Your task to perform on an android device: open app "Speedtest by Ookla" Image 0: 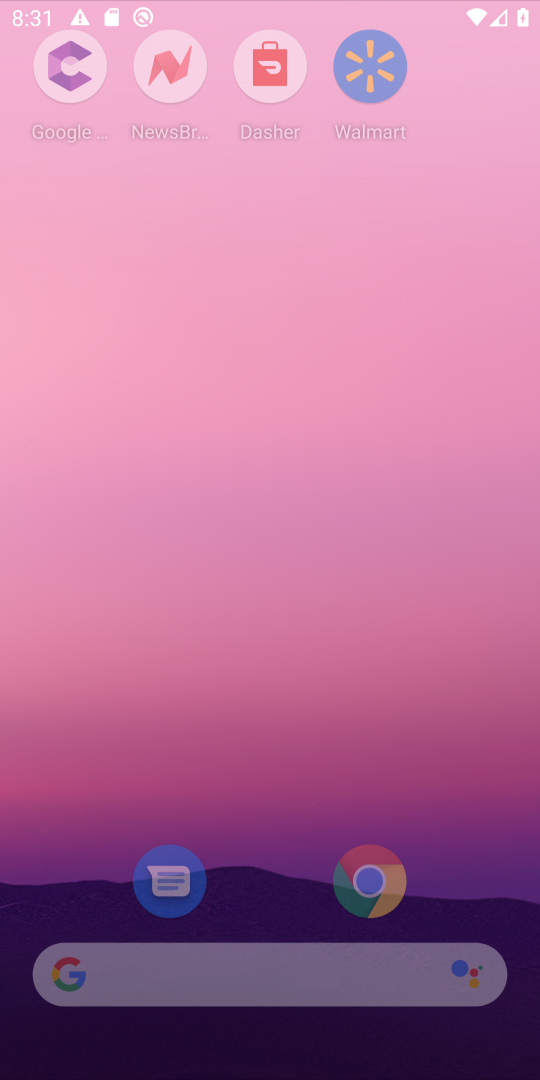
Step 0: click (441, 66)
Your task to perform on an android device: open app "Speedtest by Ookla" Image 1: 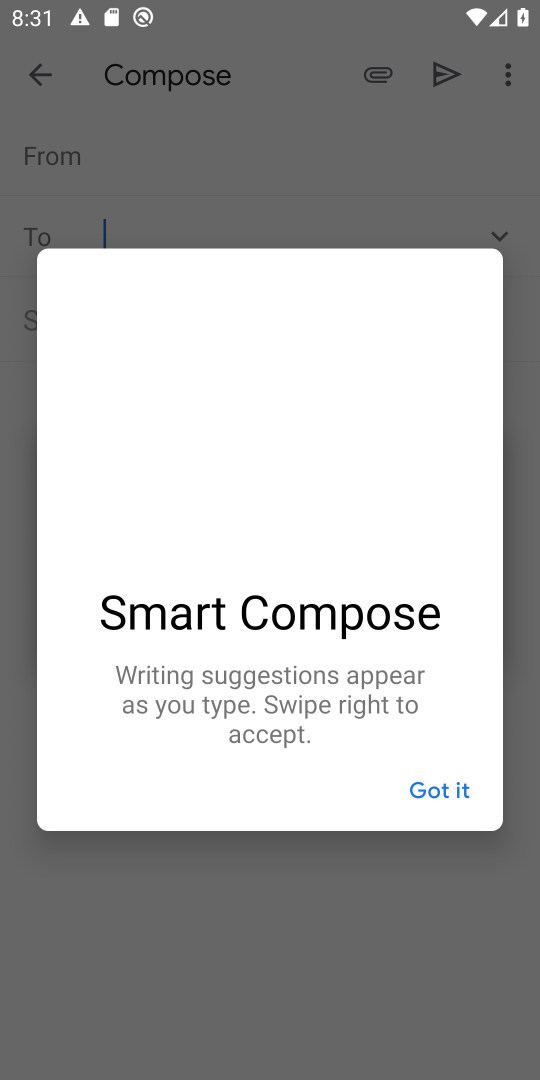
Step 1: press home button
Your task to perform on an android device: open app "Speedtest by Ookla" Image 2: 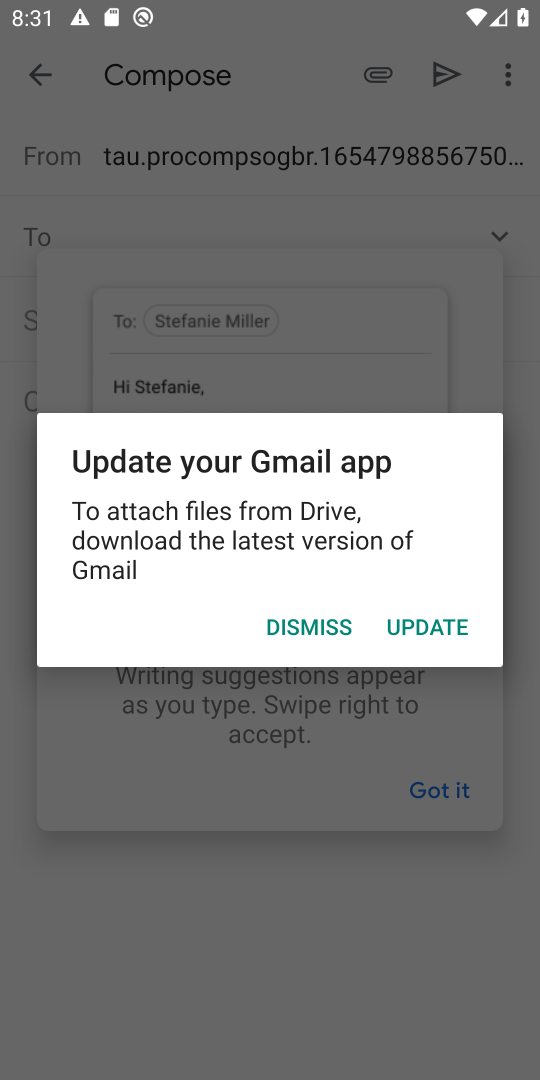
Step 2: press home button
Your task to perform on an android device: open app "Speedtest by Ookla" Image 3: 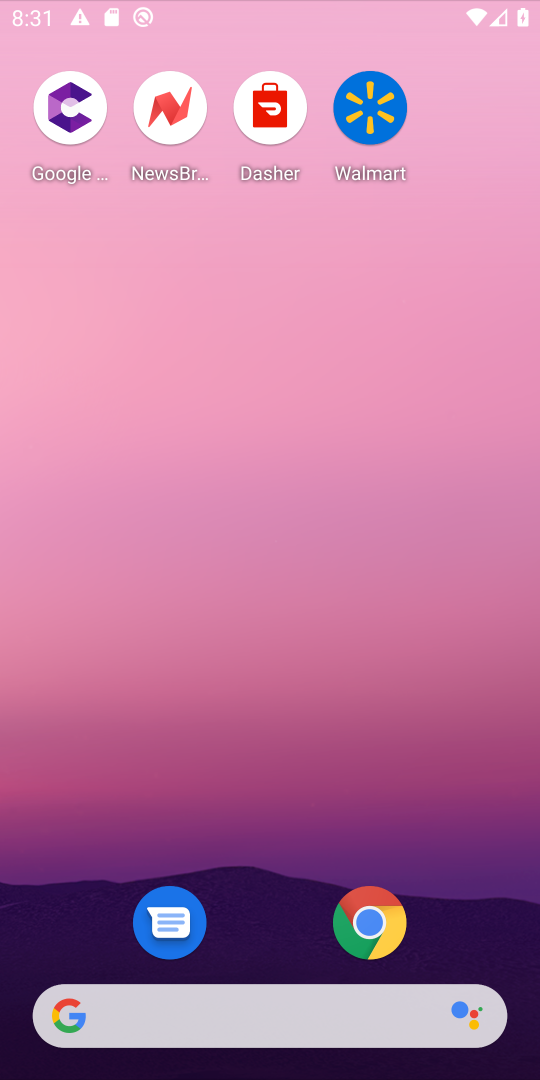
Step 3: press home button
Your task to perform on an android device: open app "Speedtest by Ookla" Image 4: 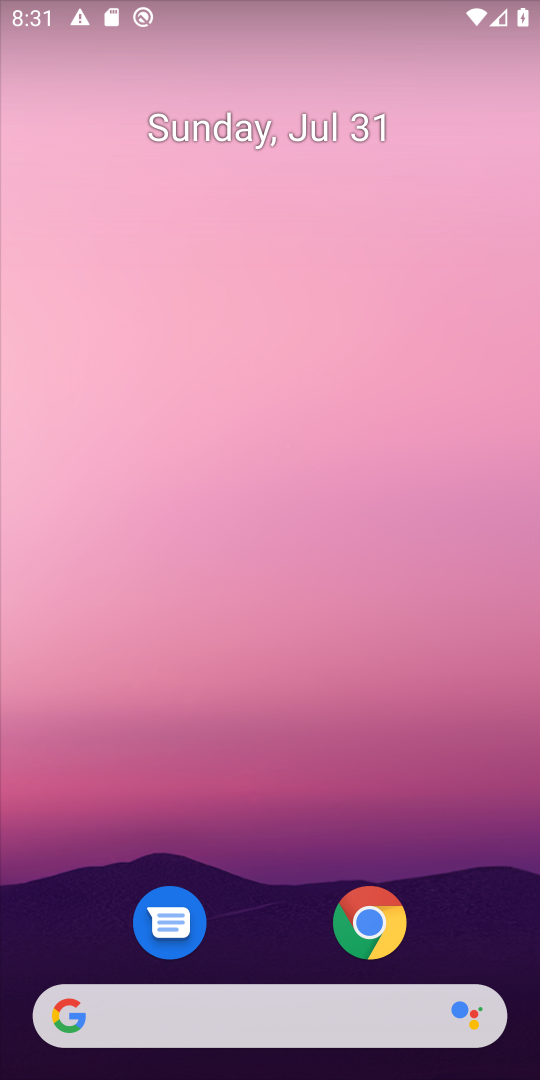
Step 4: drag from (288, 1012) to (332, 512)
Your task to perform on an android device: open app "Speedtest by Ookla" Image 5: 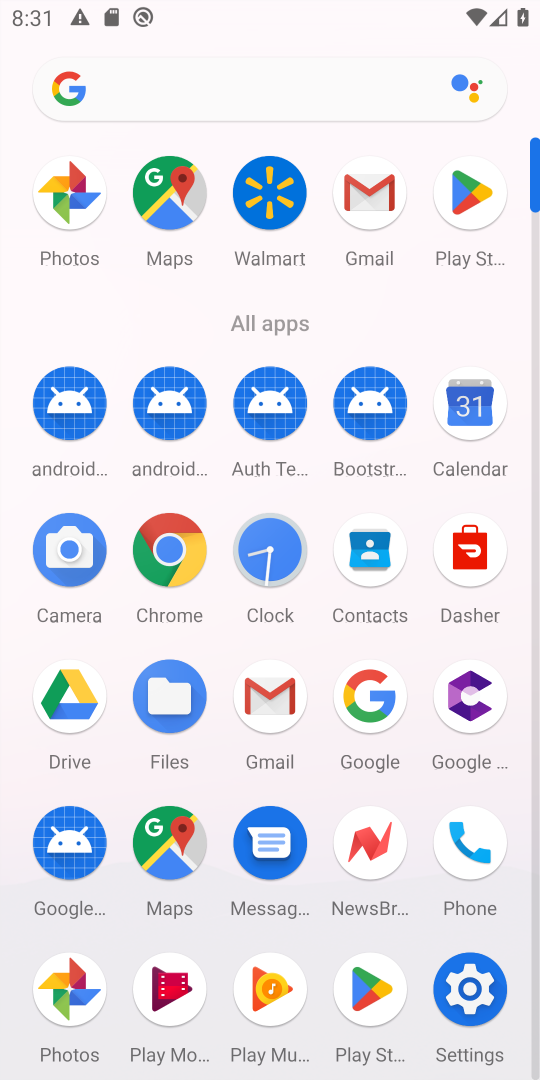
Step 5: click (379, 989)
Your task to perform on an android device: open app "Speedtest by Ookla" Image 6: 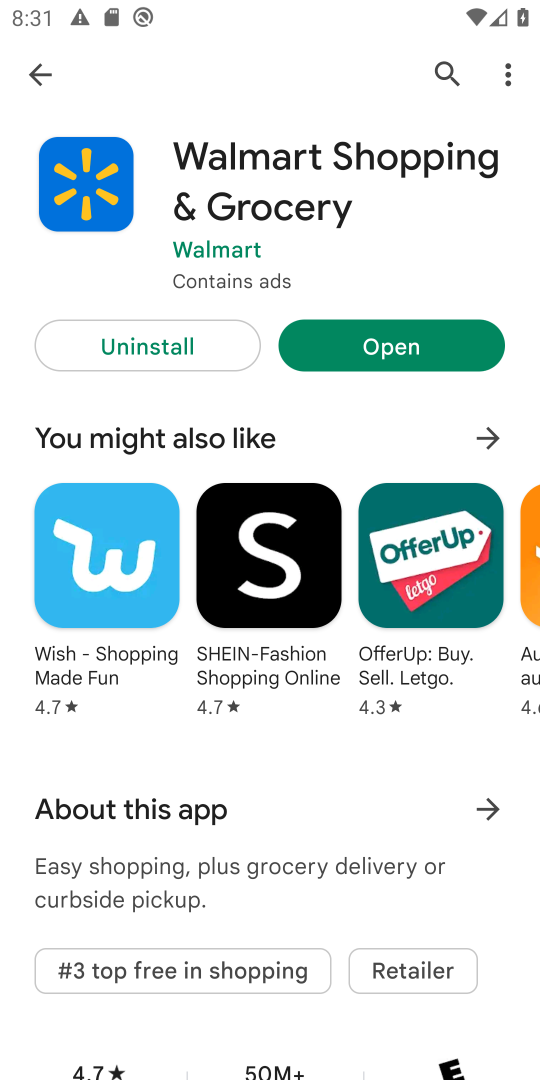
Step 6: click (447, 58)
Your task to perform on an android device: open app "Speedtest by Ookla" Image 7: 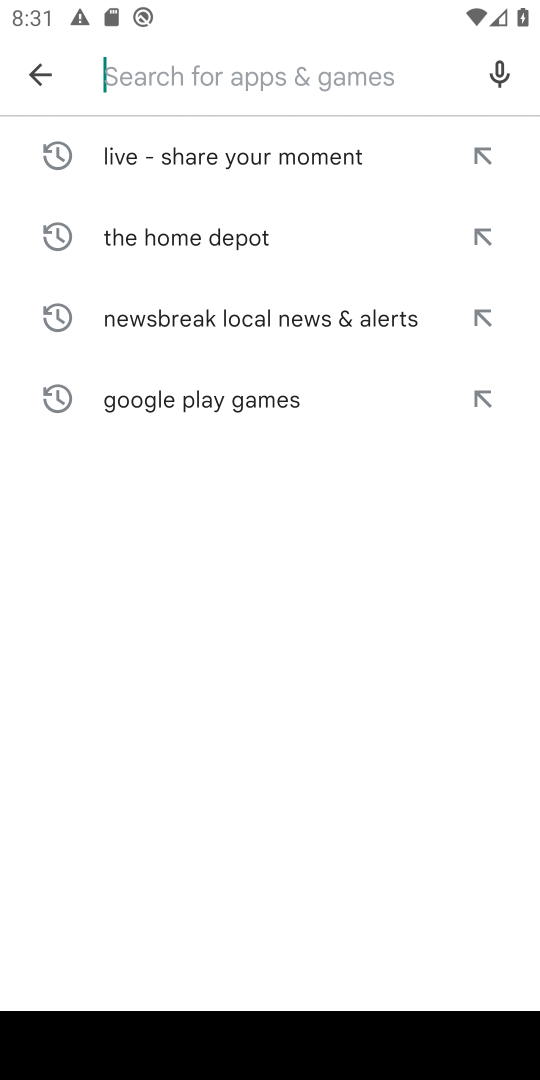
Step 7: type "Speedtest by Ookla"
Your task to perform on an android device: open app "Speedtest by Ookla" Image 8: 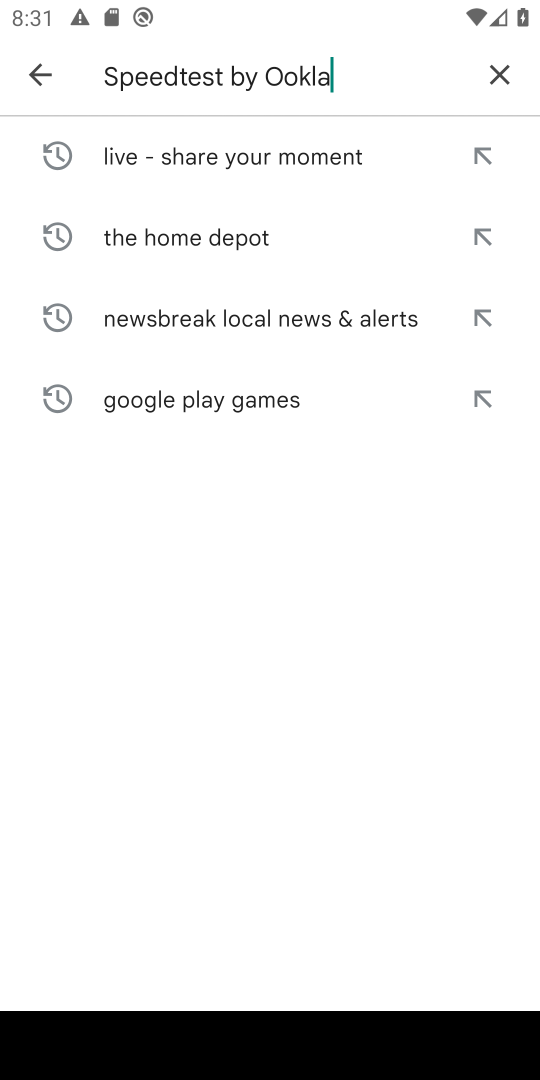
Step 8: type ""
Your task to perform on an android device: open app "Speedtest by Ookla" Image 9: 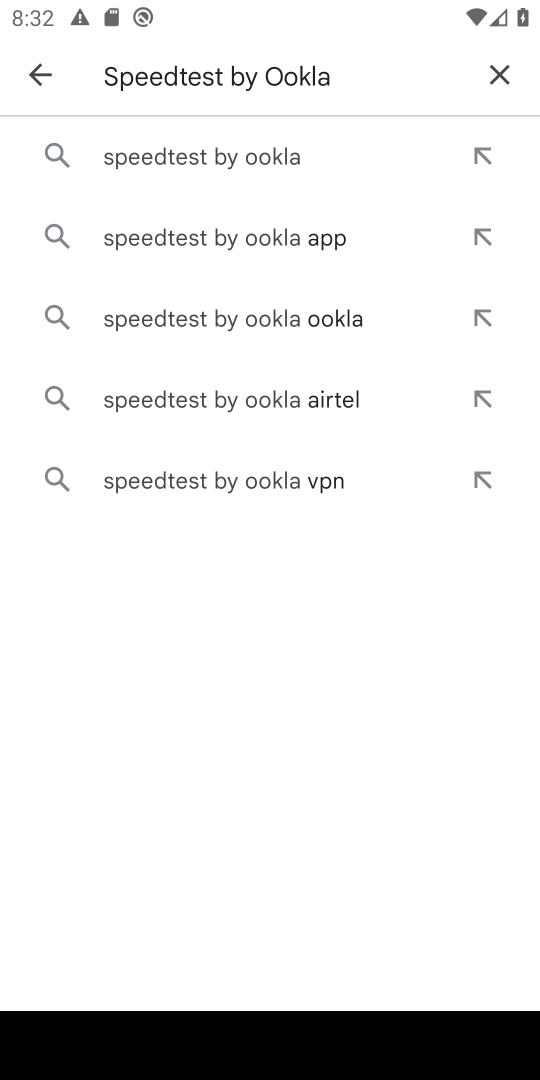
Step 9: click (233, 154)
Your task to perform on an android device: open app "Speedtest by Ookla" Image 10: 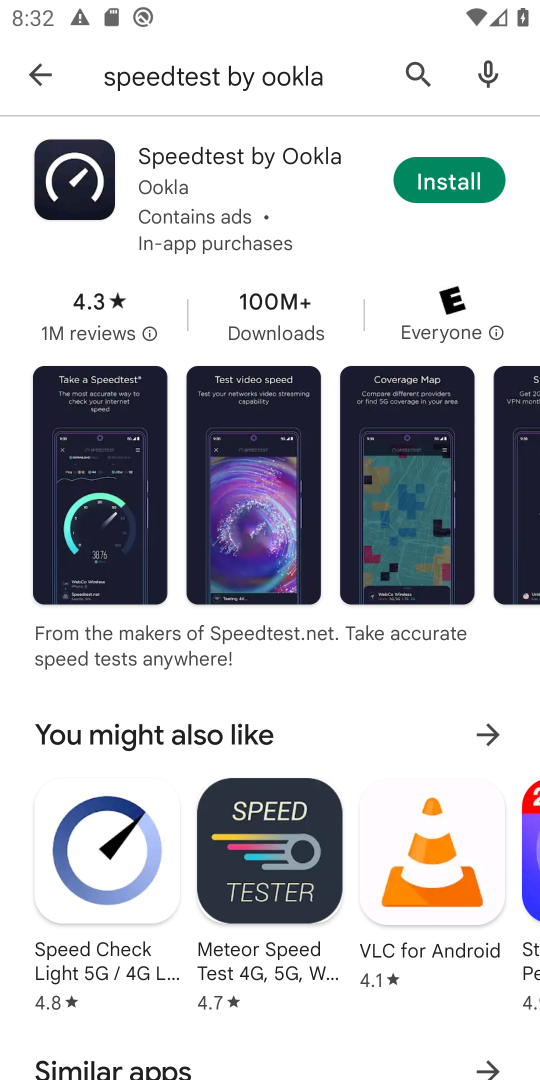
Step 10: task complete